Your task to perform on an android device: clear all cookies in the chrome app Image 0: 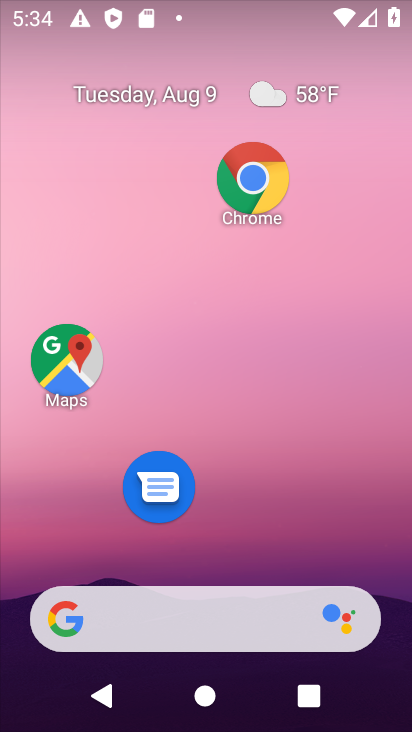
Step 0: click (260, 175)
Your task to perform on an android device: clear all cookies in the chrome app Image 1: 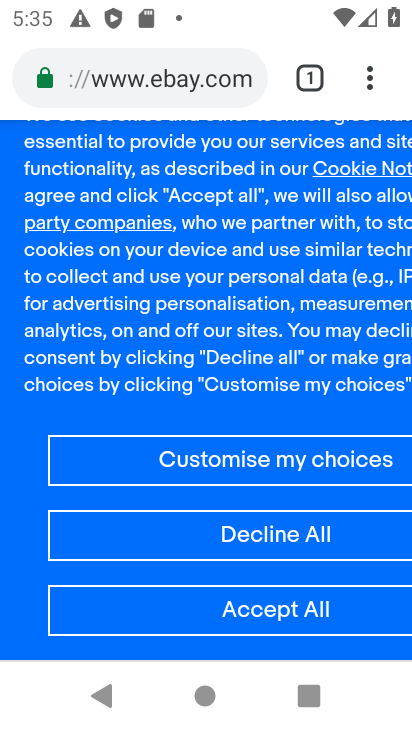
Step 1: click (372, 73)
Your task to perform on an android device: clear all cookies in the chrome app Image 2: 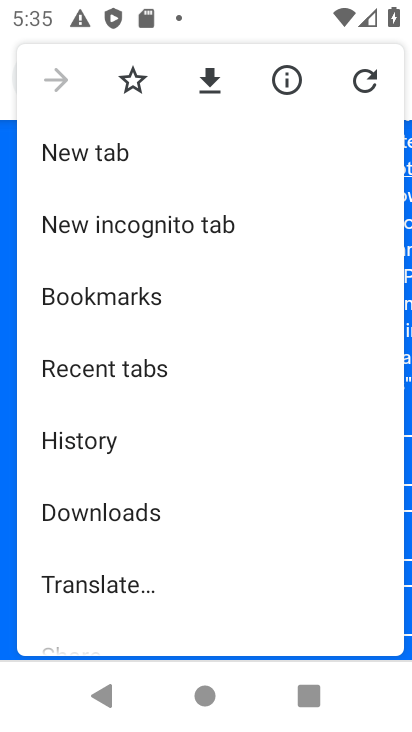
Step 2: click (95, 441)
Your task to perform on an android device: clear all cookies in the chrome app Image 3: 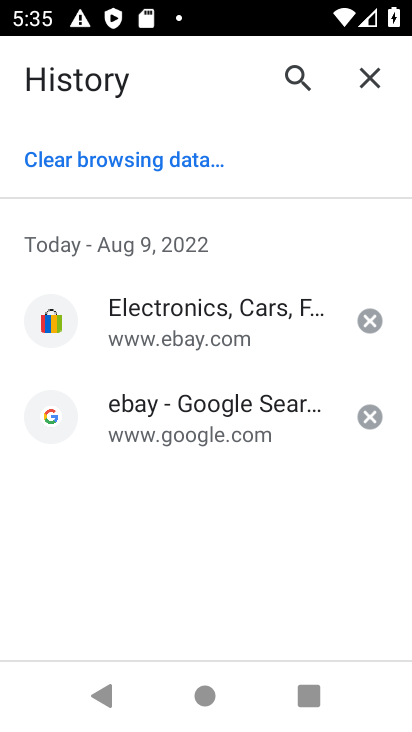
Step 3: click (114, 161)
Your task to perform on an android device: clear all cookies in the chrome app Image 4: 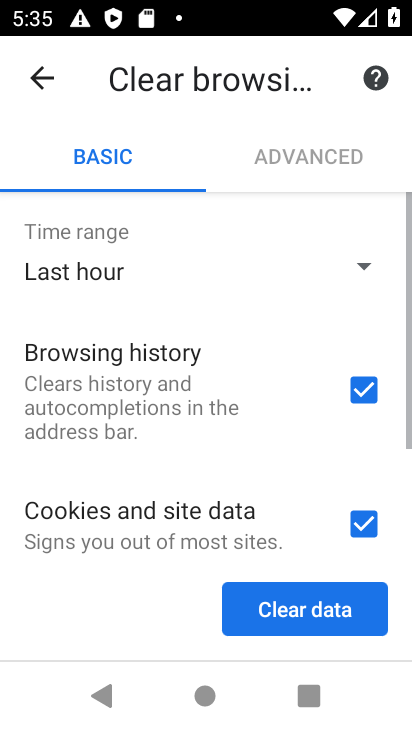
Step 4: click (294, 608)
Your task to perform on an android device: clear all cookies in the chrome app Image 5: 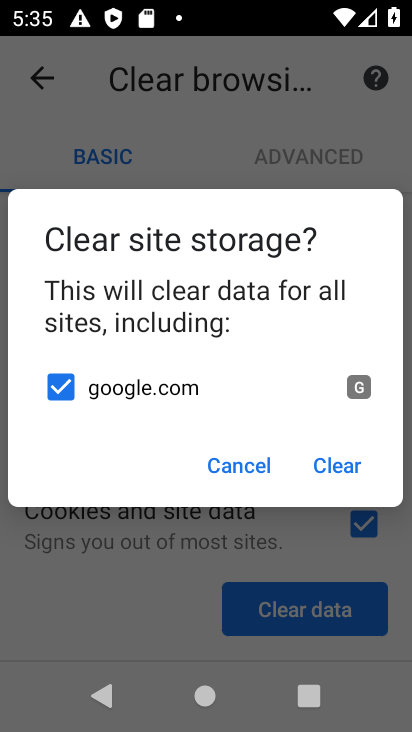
Step 5: click (344, 462)
Your task to perform on an android device: clear all cookies in the chrome app Image 6: 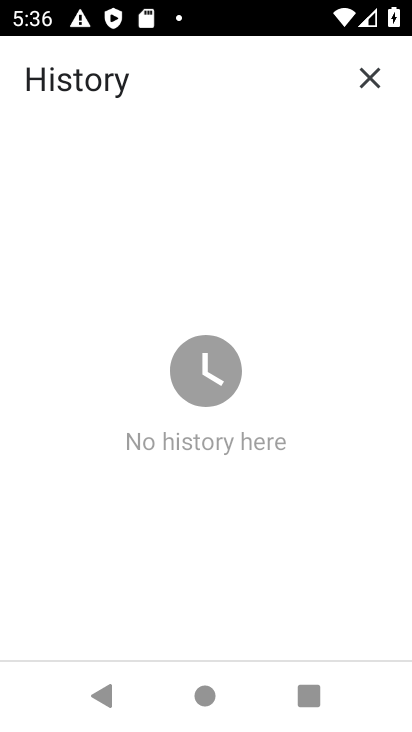
Step 6: task complete